Your task to perform on an android device: turn off javascript in the chrome app Image 0: 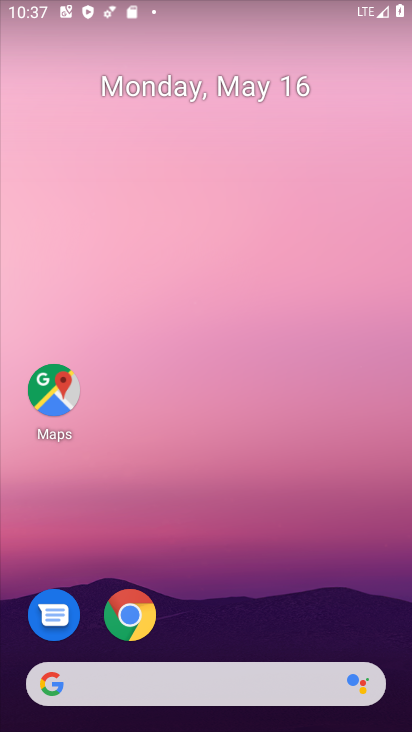
Step 0: drag from (221, 659) to (408, 154)
Your task to perform on an android device: turn off javascript in the chrome app Image 1: 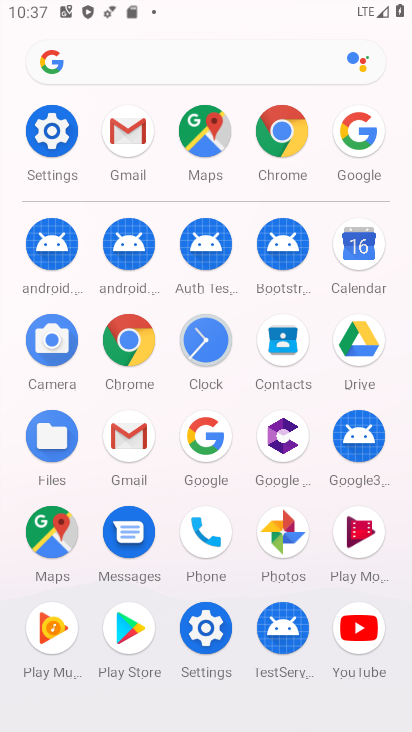
Step 1: click (259, 152)
Your task to perform on an android device: turn off javascript in the chrome app Image 2: 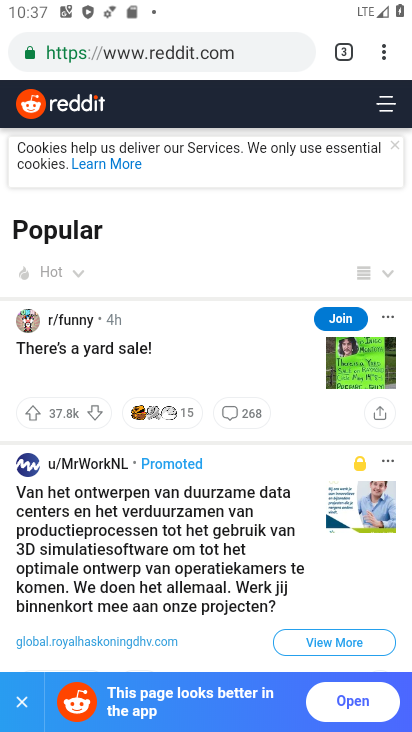
Step 2: click (385, 43)
Your task to perform on an android device: turn off javascript in the chrome app Image 3: 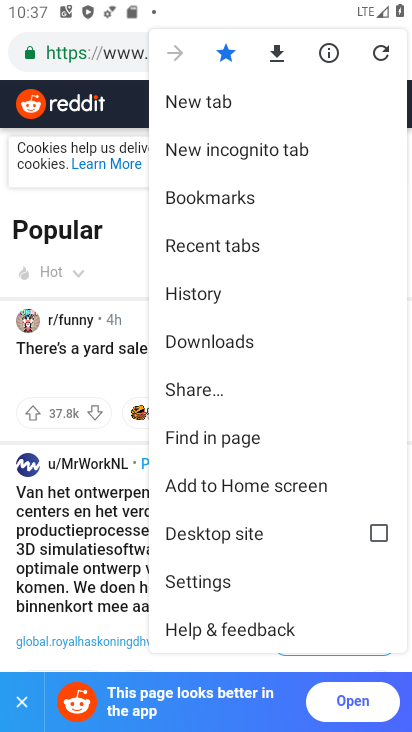
Step 3: click (212, 588)
Your task to perform on an android device: turn off javascript in the chrome app Image 4: 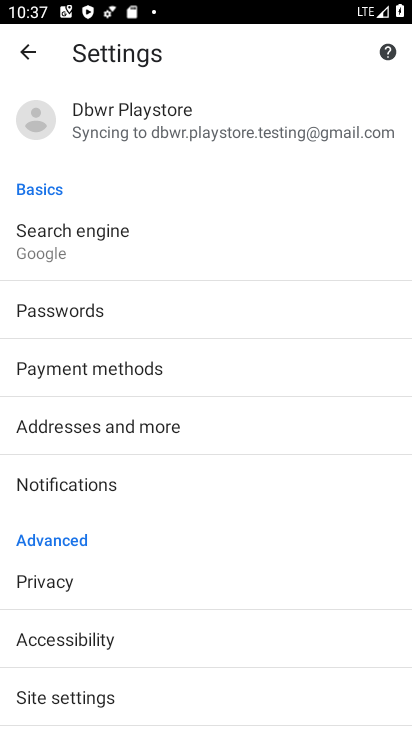
Step 4: click (122, 691)
Your task to perform on an android device: turn off javascript in the chrome app Image 5: 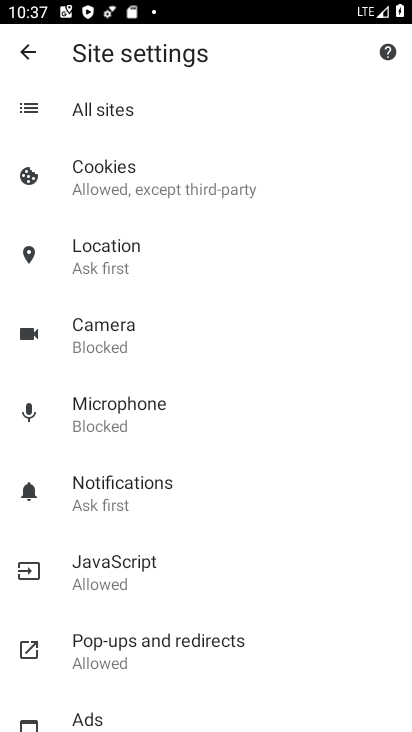
Step 5: click (176, 571)
Your task to perform on an android device: turn off javascript in the chrome app Image 6: 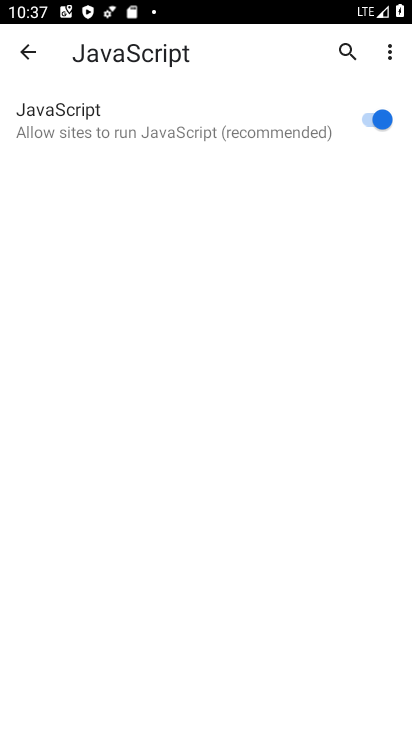
Step 6: click (356, 128)
Your task to perform on an android device: turn off javascript in the chrome app Image 7: 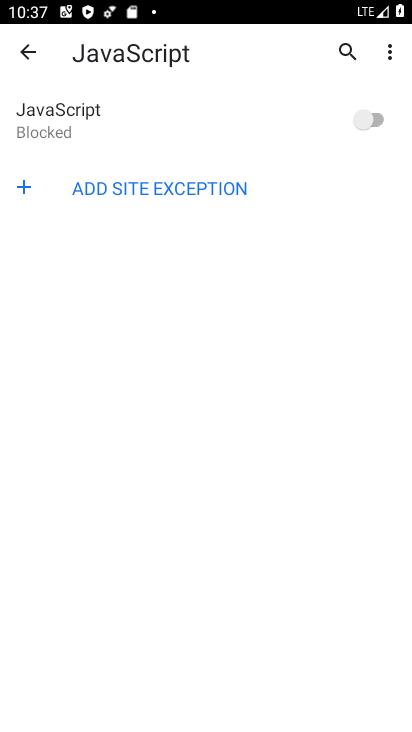
Step 7: task complete